Your task to perform on an android device: star an email in the gmail app Image 0: 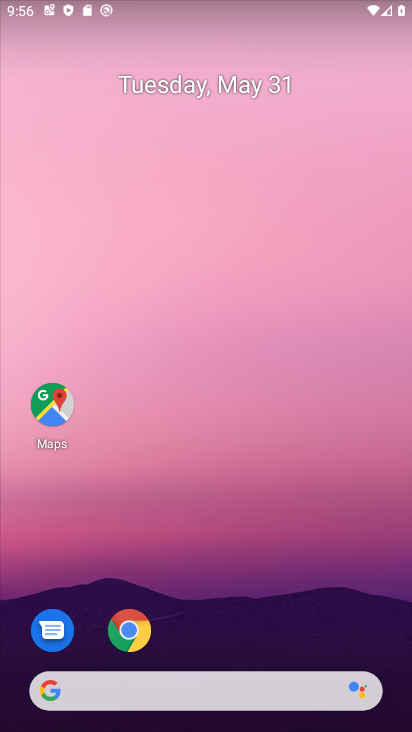
Step 0: drag from (195, 568) to (271, 234)
Your task to perform on an android device: star an email in the gmail app Image 1: 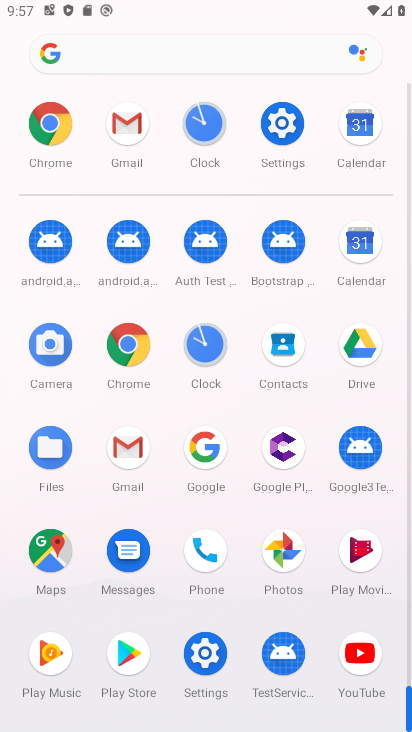
Step 1: click (124, 460)
Your task to perform on an android device: star an email in the gmail app Image 2: 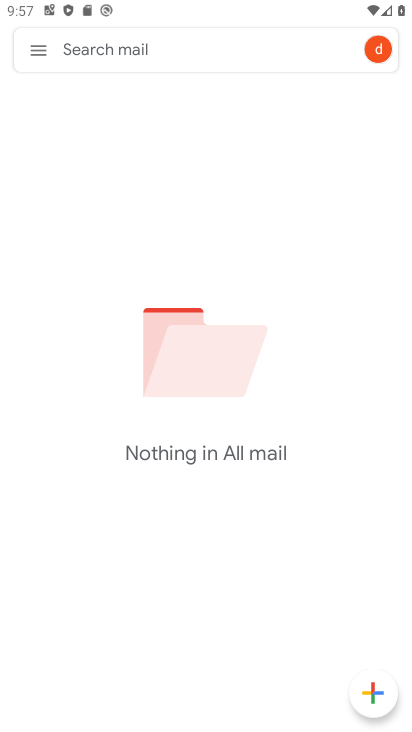
Step 2: click (42, 56)
Your task to perform on an android device: star an email in the gmail app Image 3: 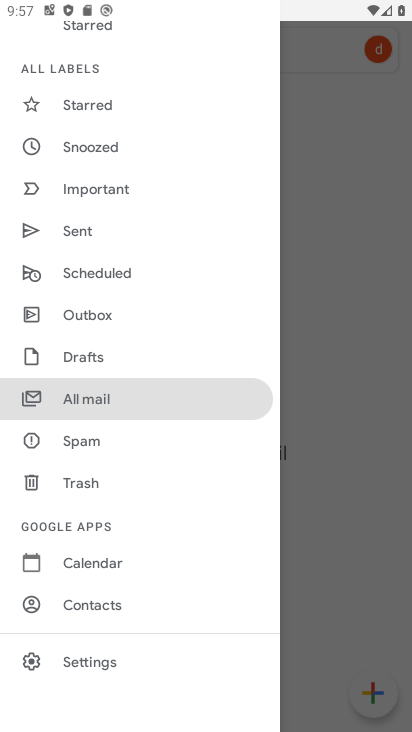
Step 3: task complete